Your task to perform on an android device: toggle wifi Image 0: 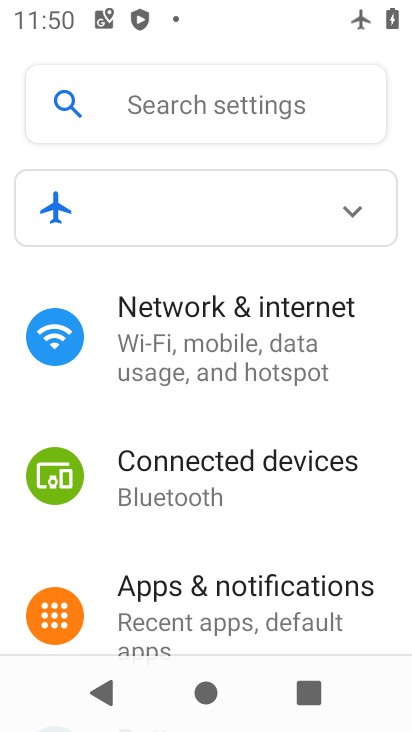
Step 0: click (282, 337)
Your task to perform on an android device: toggle wifi Image 1: 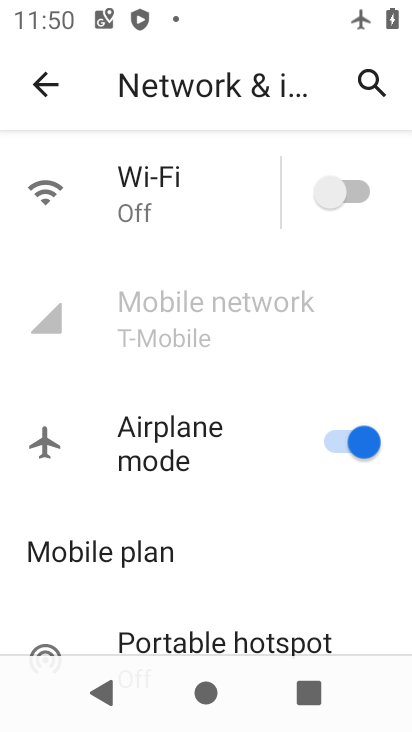
Step 1: click (214, 213)
Your task to perform on an android device: toggle wifi Image 2: 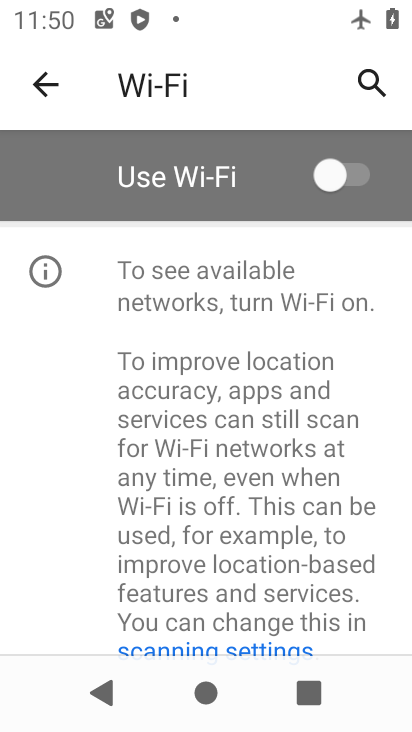
Step 2: click (301, 186)
Your task to perform on an android device: toggle wifi Image 3: 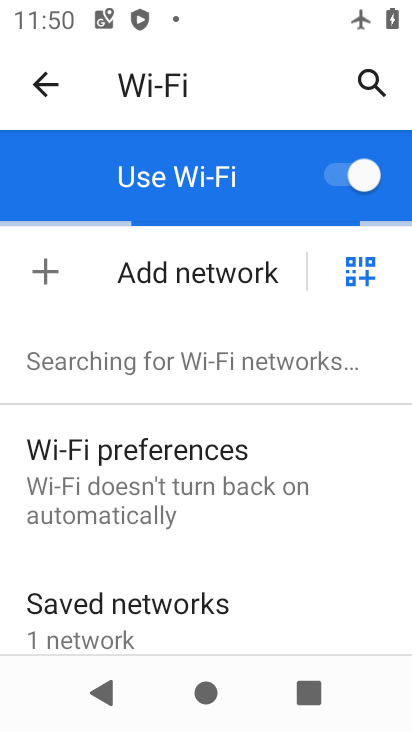
Step 3: task complete